Your task to perform on an android device: Open Google Maps and go to "Timeline" Image 0: 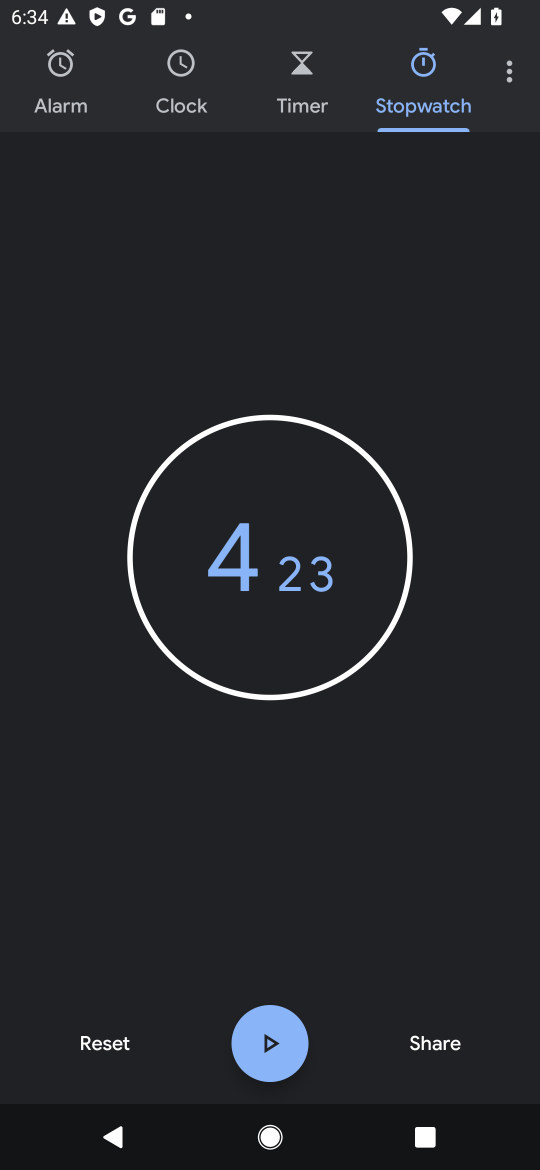
Step 0: press home button
Your task to perform on an android device: Open Google Maps and go to "Timeline" Image 1: 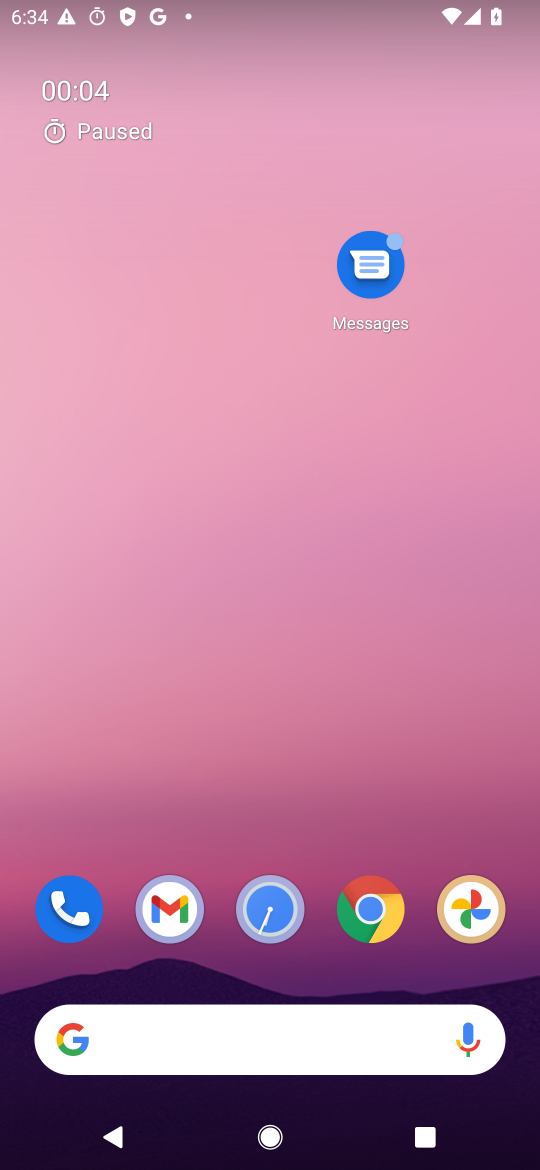
Step 1: drag from (223, 1026) to (463, 213)
Your task to perform on an android device: Open Google Maps and go to "Timeline" Image 2: 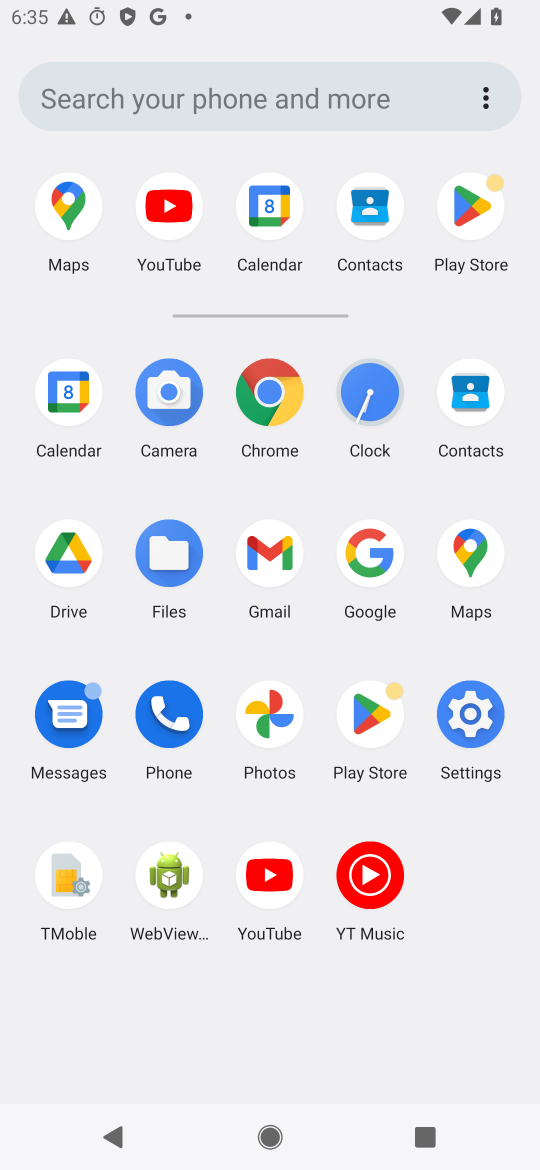
Step 2: click (66, 204)
Your task to perform on an android device: Open Google Maps and go to "Timeline" Image 3: 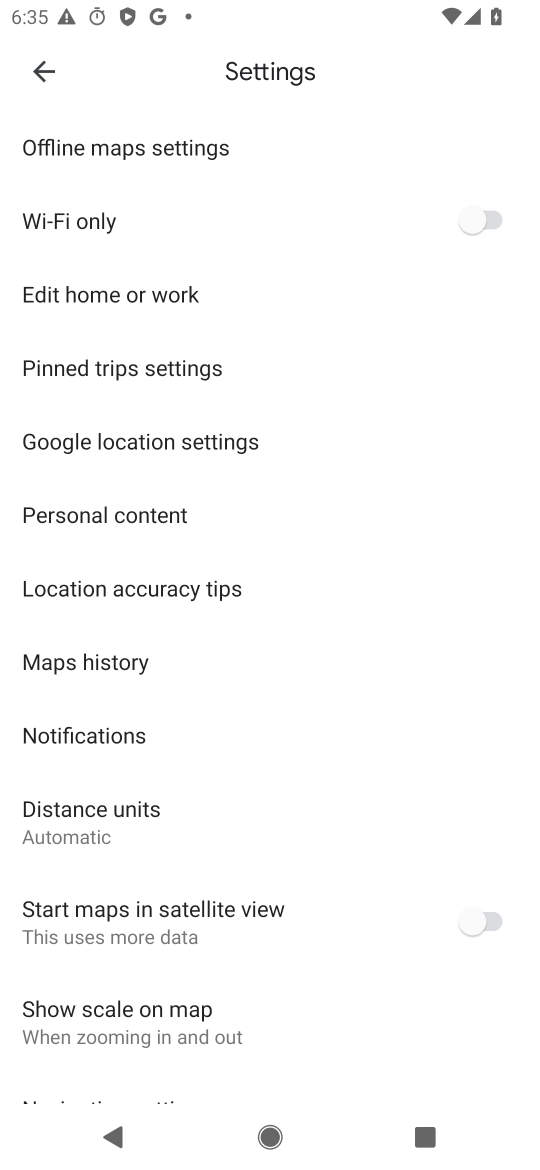
Step 3: drag from (293, 939) to (433, 311)
Your task to perform on an android device: Open Google Maps and go to "Timeline" Image 4: 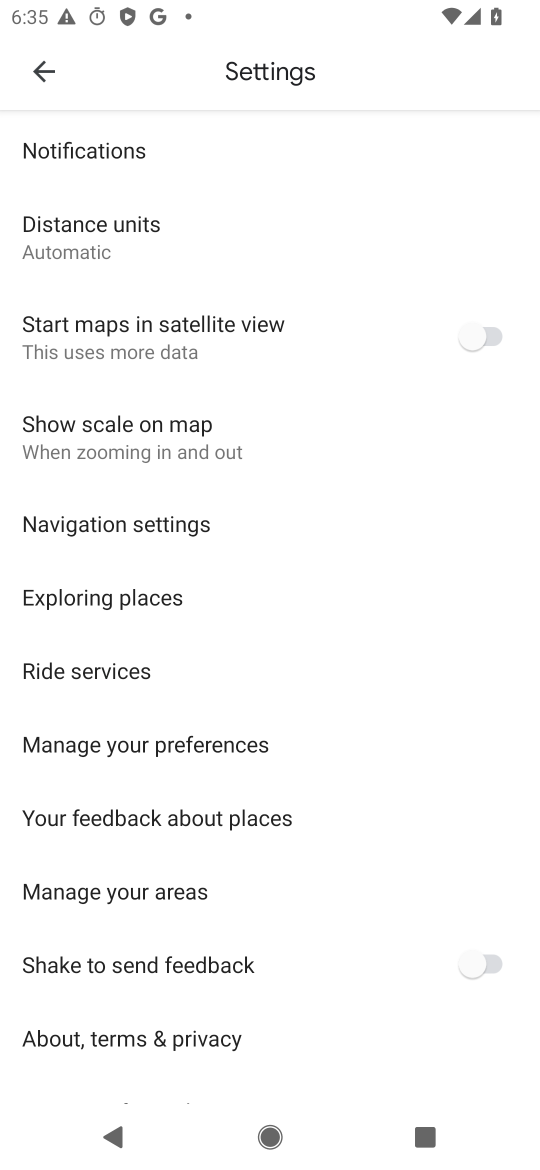
Step 4: click (47, 57)
Your task to perform on an android device: Open Google Maps and go to "Timeline" Image 5: 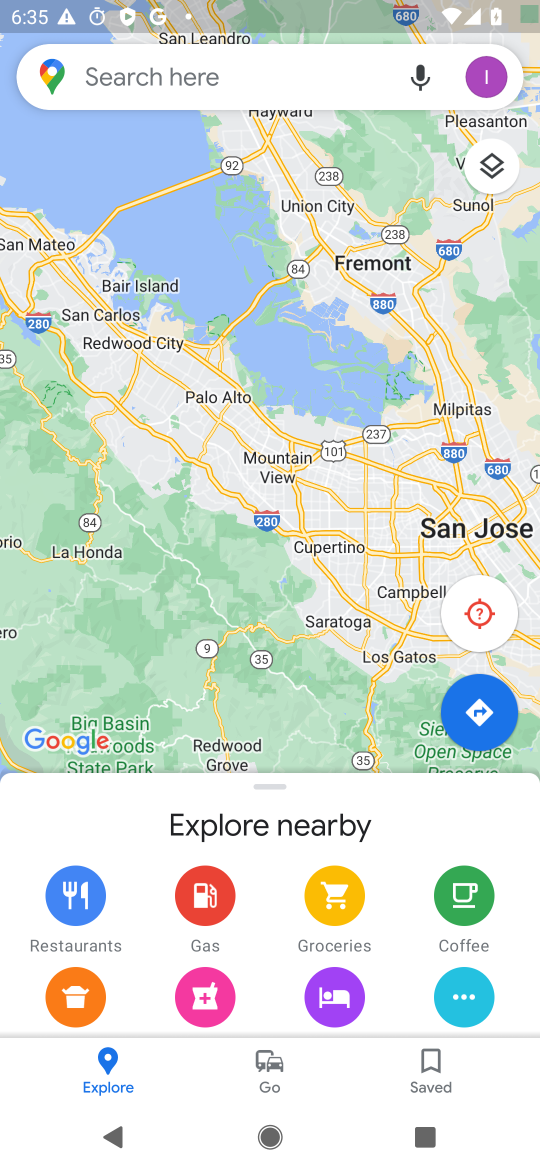
Step 5: click (474, 90)
Your task to perform on an android device: Open Google Maps and go to "Timeline" Image 6: 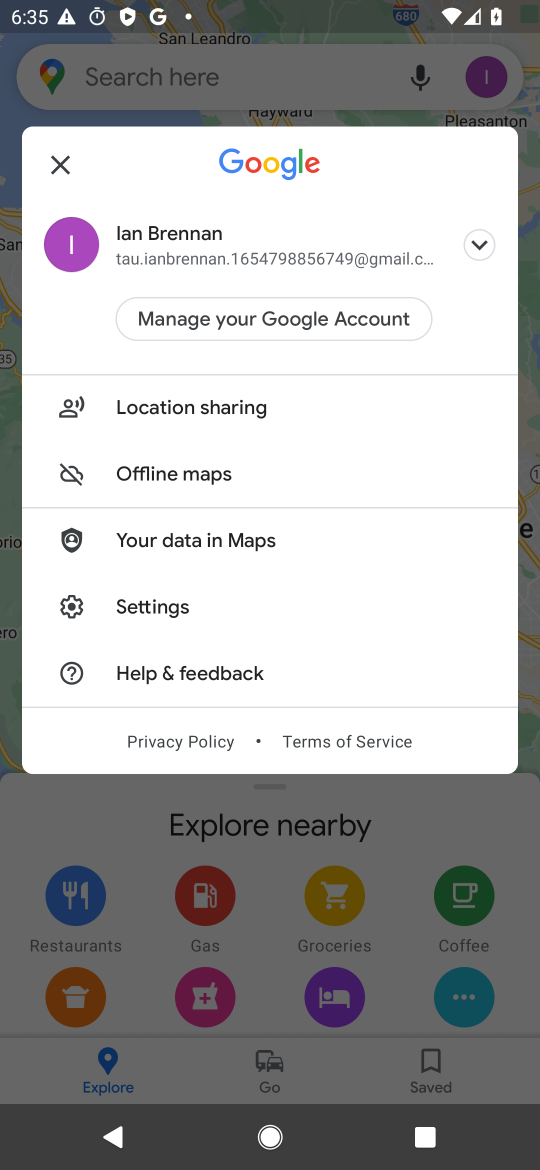
Step 6: task complete